Your task to perform on an android device: delete location history Image 0: 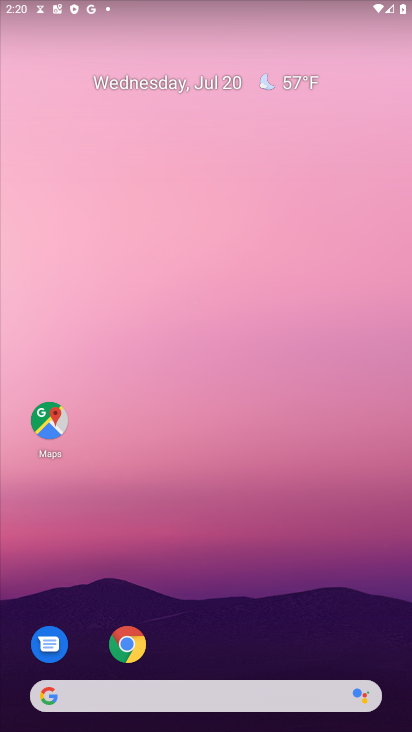
Step 0: press home button
Your task to perform on an android device: delete location history Image 1: 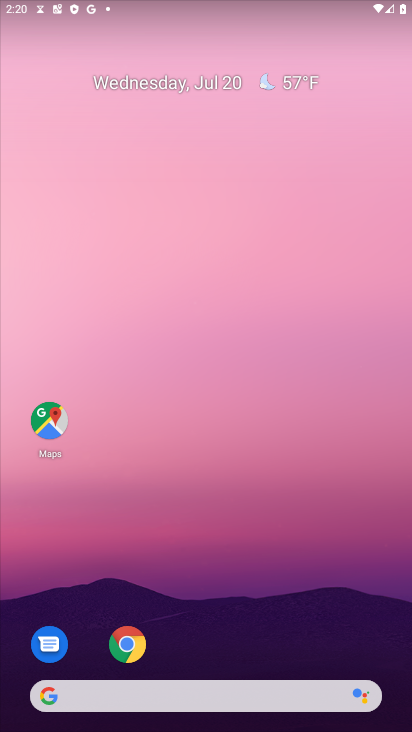
Step 1: drag from (218, 666) to (306, 146)
Your task to perform on an android device: delete location history Image 2: 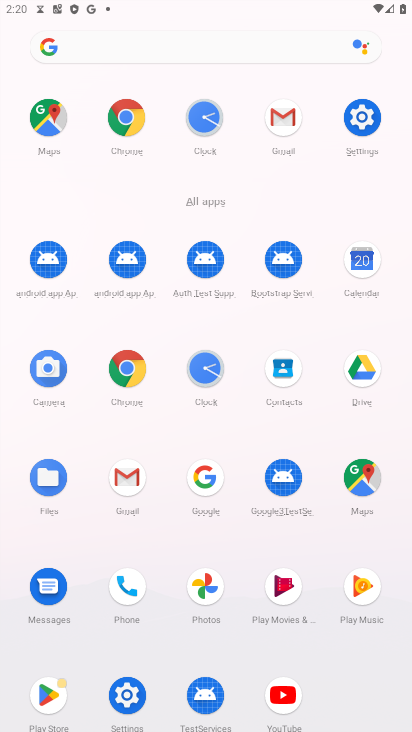
Step 2: click (128, 129)
Your task to perform on an android device: delete location history Image 3: 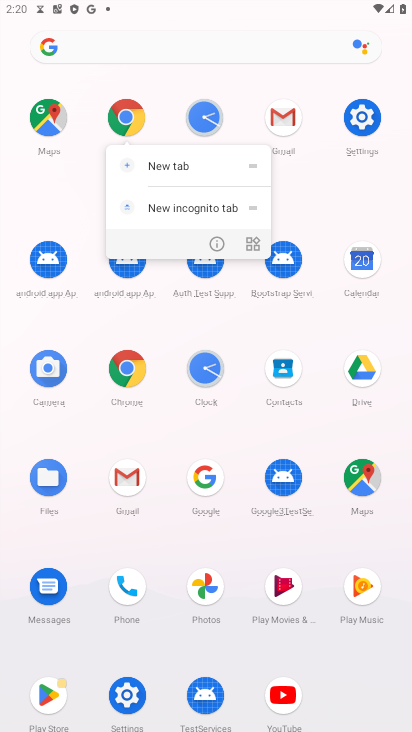
Step 3: click (370, 492)
Your task to perform on an android device: delete location history Image 4: 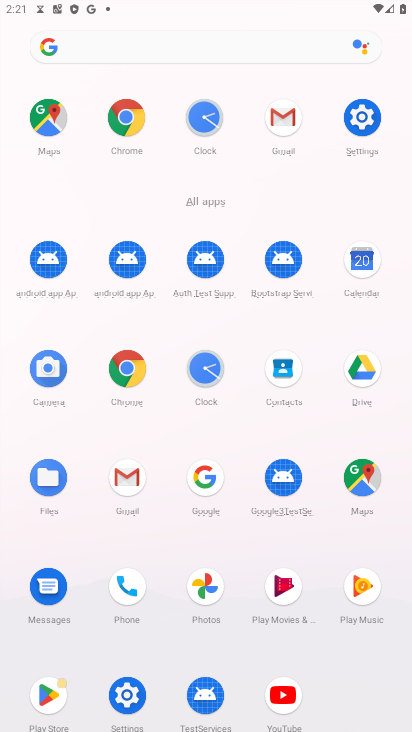
Step 4: click (353, 485)
Your task to perform on an android device: delete location history Image 5: 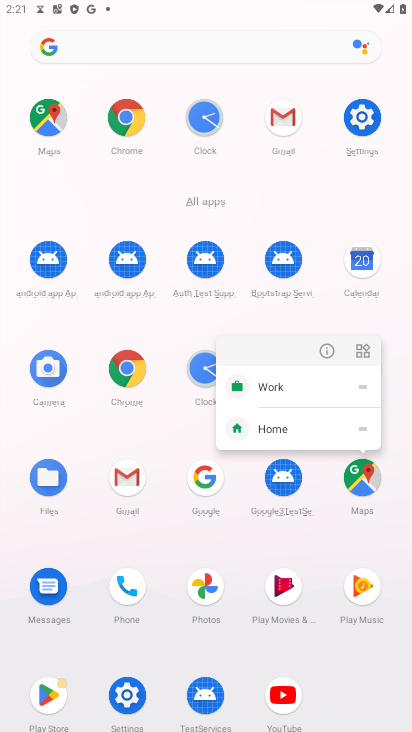
Step 5: click (341, 495)
Your task to perform on an android device: delete location history Image 6: 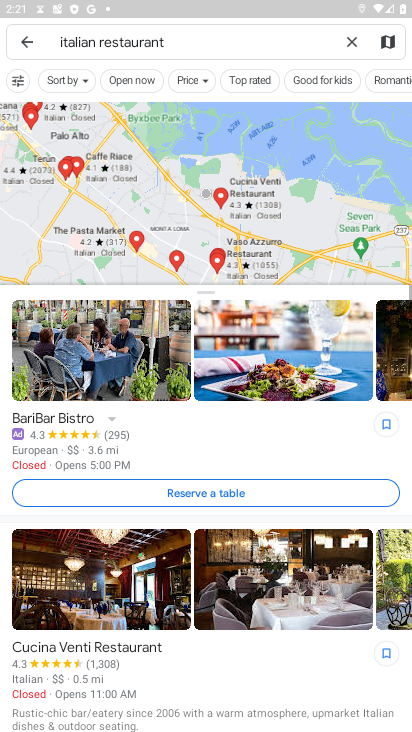
Step 6: click (354, 44)
Your task to perform on an android device: delete location history Image 7: 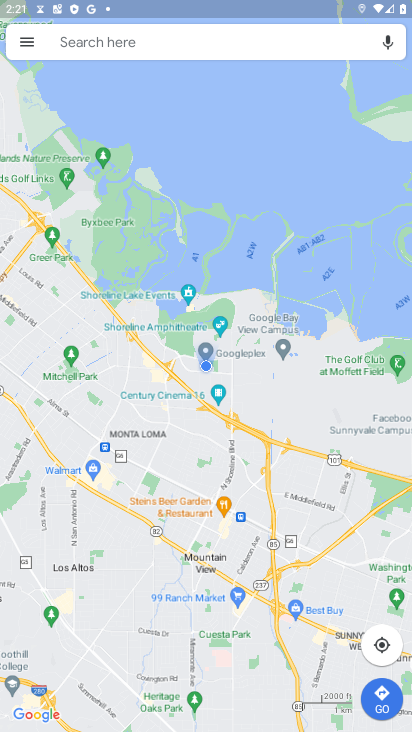
Step 7: click (24, 50)
Your task to perform on an android device: delete location history Image 8: 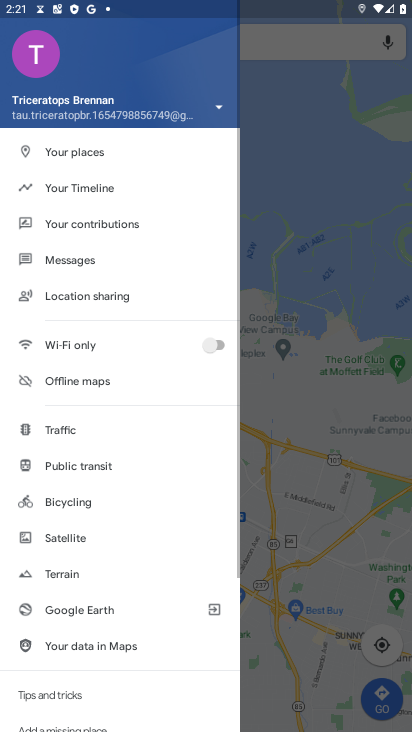
Step 8: click (89, 187)
Your task to perform on an android device: delete location history Image 9: 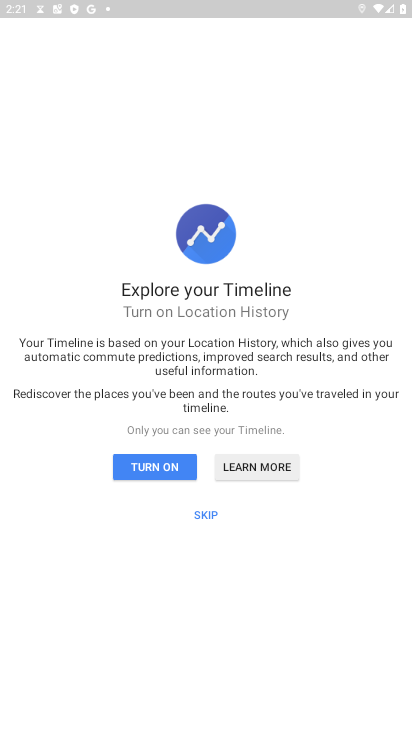
Step 9: click (138, 467)
Your task to perform on an android device: delete location history Image 10: 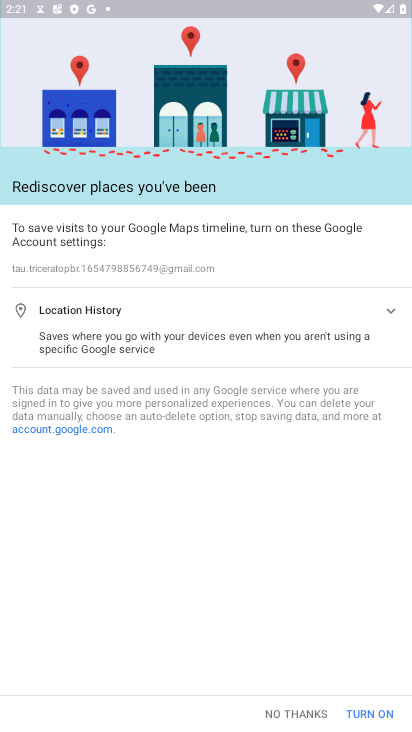
Step 10: click (299, 713)
Your task to perform on an android device: delete location history Image 11: 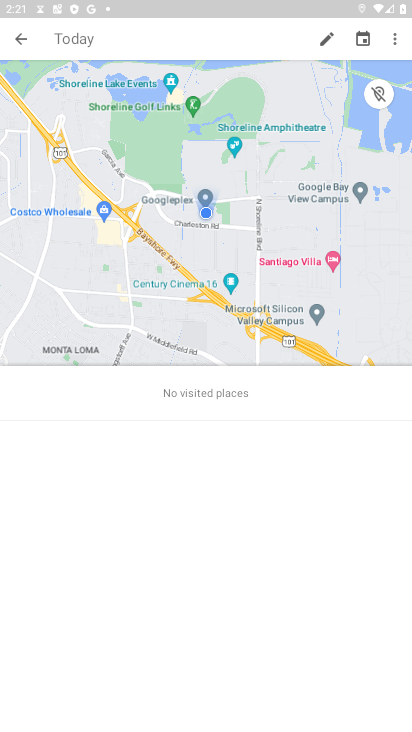
Step 11: click (404, 26)
Your task to perform on an android device: delete location history Image 12: 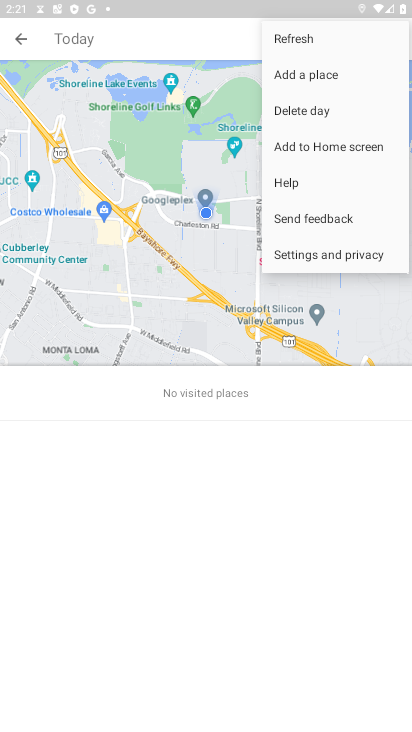
Step 12: click (318, 262)
Your task to perform on an android device: delete location history Image 13: 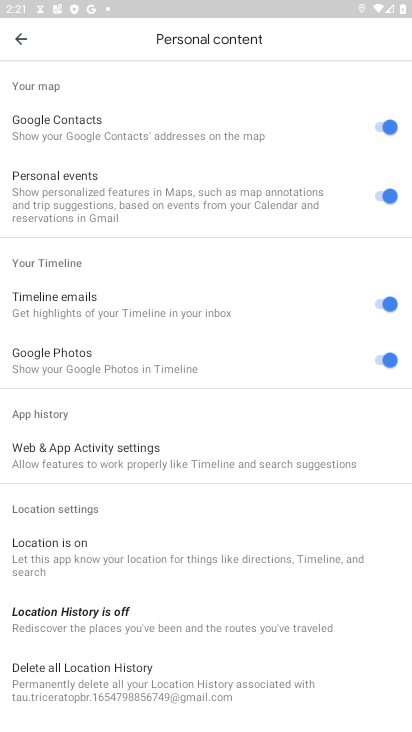
Step 13: click (109, 686)
Your task to perform on an android device: delete location history Image 14: 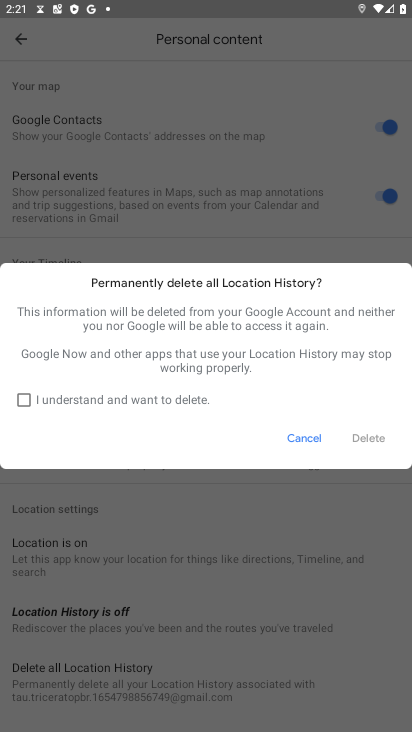
Step 14: click (34, 408)
Your task to perform on an android device: delete location history Image 15: 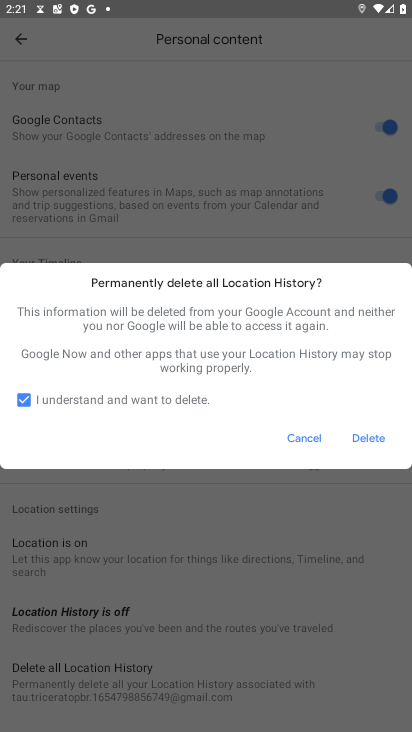
Step 15: click (361, 443)
Your task to perform on an android device: delete location history Image 16: 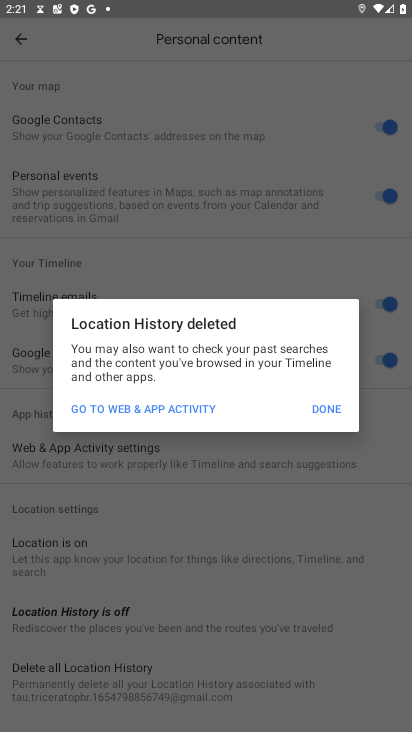
Step 16: click (334, 407)
Your task to perform on an android device: delete location history Image 17: 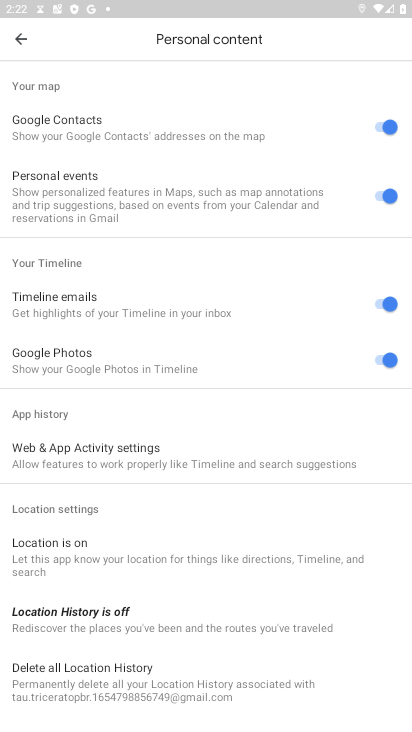
Step 17: task complete